Your task to perform on an android device: change notification settings in the gmail app Image 0: 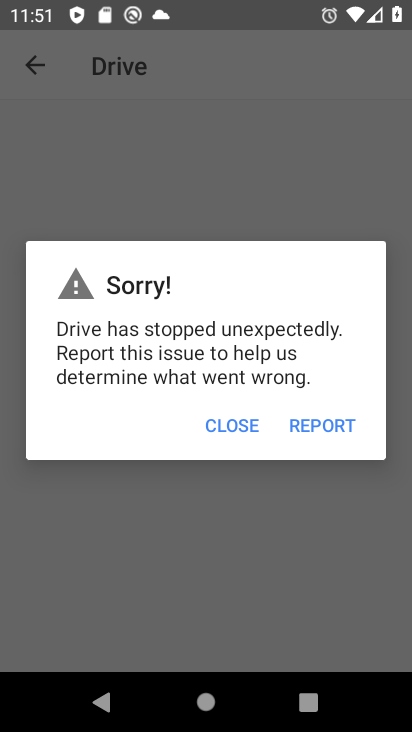
Step 0: press home button
Your task to perform on an android device: change notification settings in the gmail app Image 1: 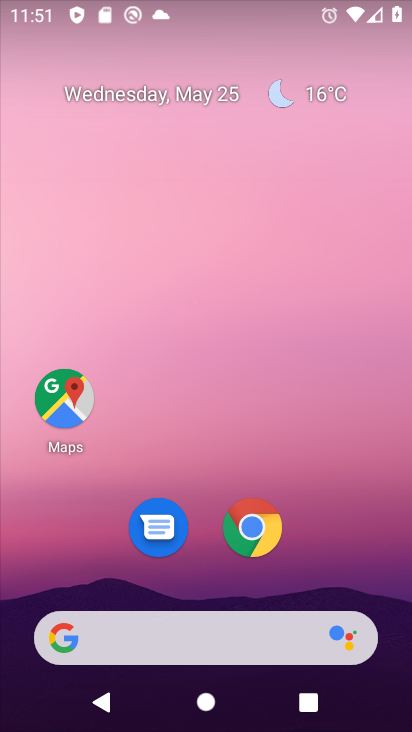
Step 1: drag from (360, 555) to (313, 69)
Your task to perform on an android device: change notification settings in the gmail app Image 2: 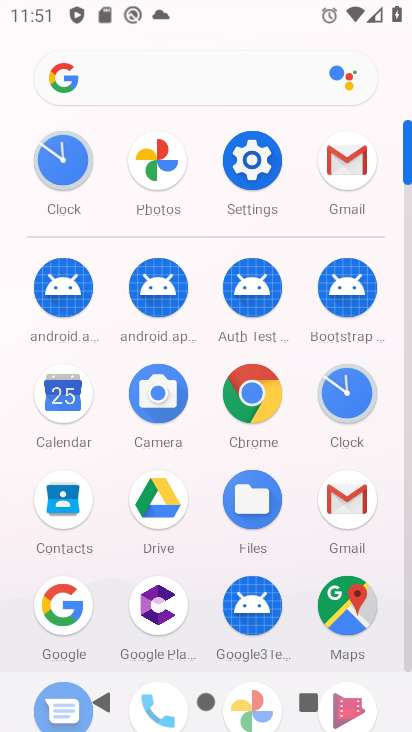
Step 2: click (362, 520)
Your task to perform on an android device: change notification settings in the gmail app Image 3: 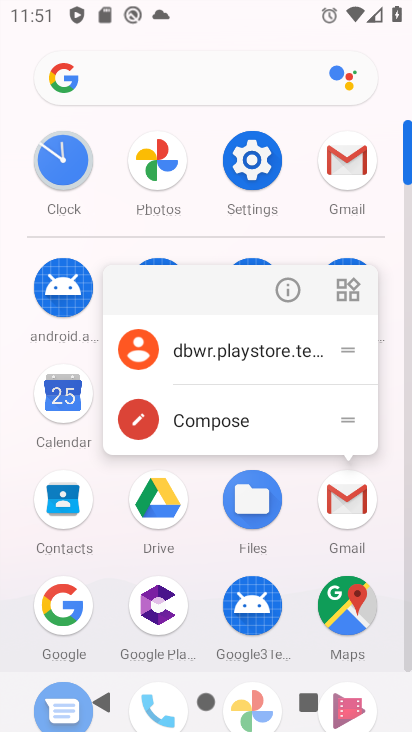
Step 3: click (289, 283)
Your task to perform on an android device: change notification settings in the gmail app Image 4: 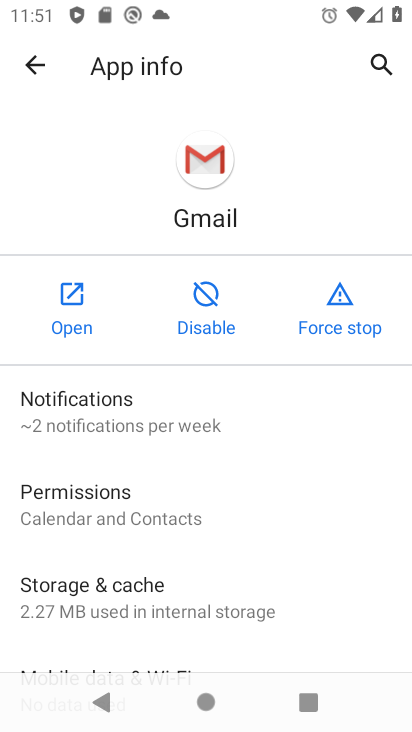
Step 4: click (54, 396)
Your task to perform on an android device: change notification settings in the gmail app Image 5: 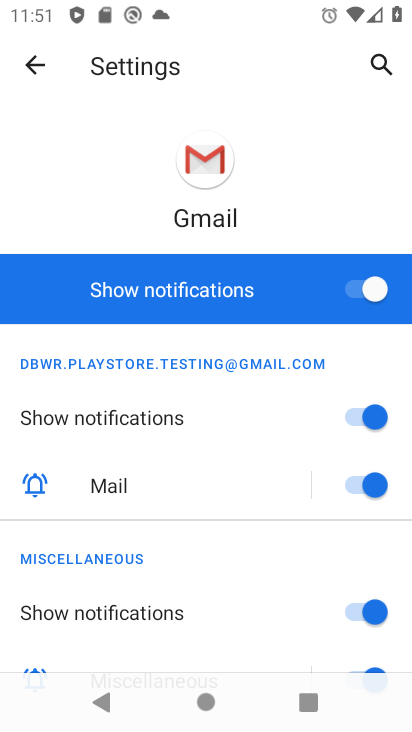
Step 5: click (270, 293)
Your task to perform on an android device: change notification settings in the gmail app Image 6: 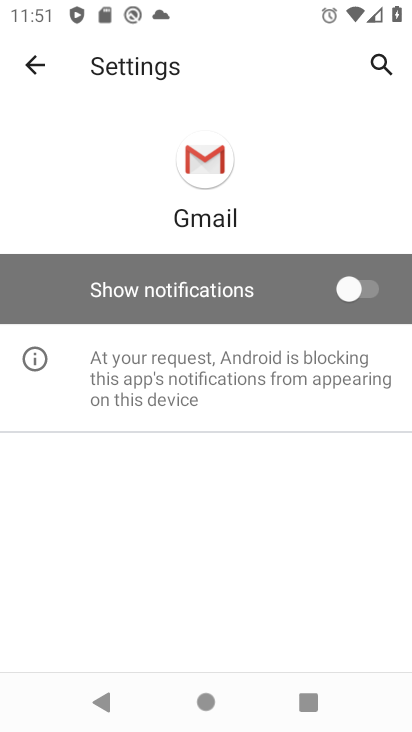
Step 6: task complete